Your task to perform on an android device: Do I have any events today? Image 0: 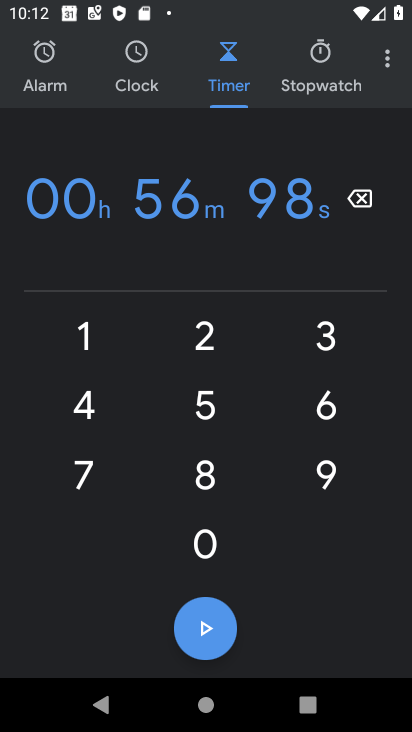
Step 0: press home button
Your task to perform on an android device: Do I have any events today? Image 1: 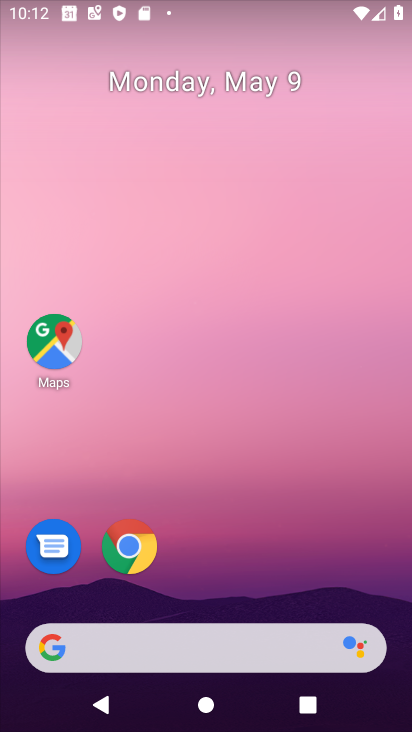
Step 1: drag from (254, 677) to (300, 99)
Your task to perform on an android device: Do I have any events today? Image 2: 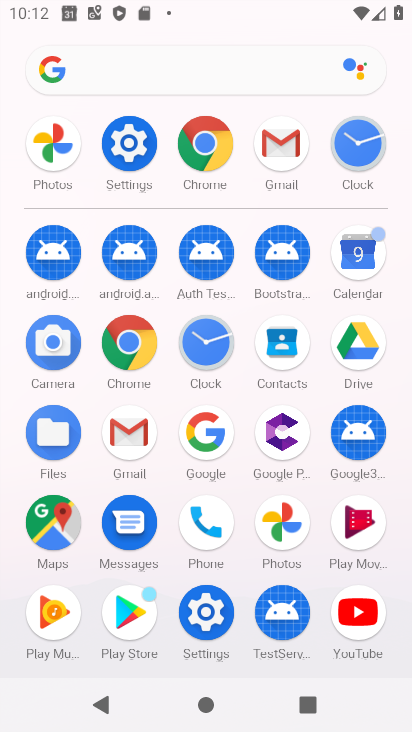
Step 2: click (346, 256)
Your task to perform on an android device: Do I have any events today? Image 3: 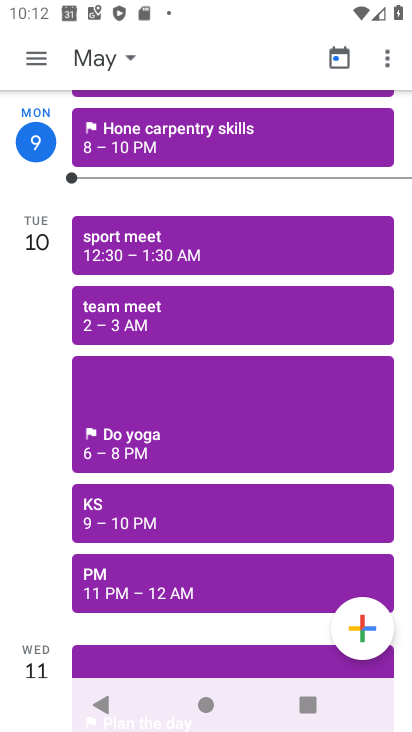
Step 3: task complete